Your task to perform on an android device: Go to CNN.com Image 0: 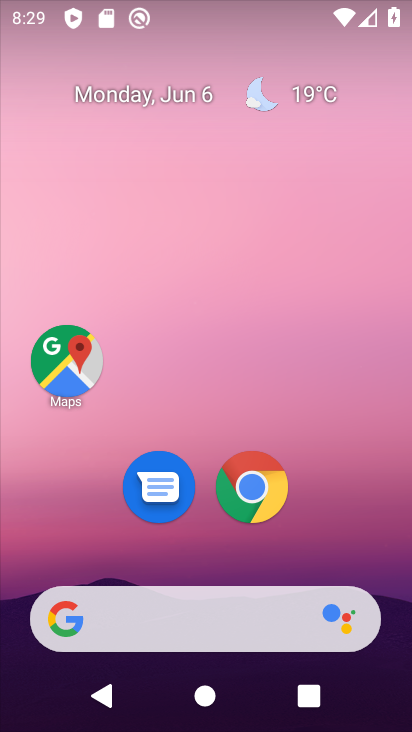
Step 0: press home button
Your task to perform on an android device: Go to CNN.com Image 1: 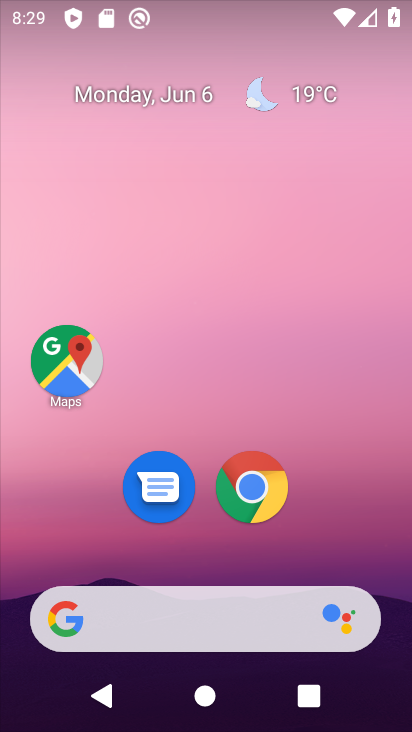
Step 1: click (248, 478)
Your task to perform on an android device: Go to CNN.com Image 2: 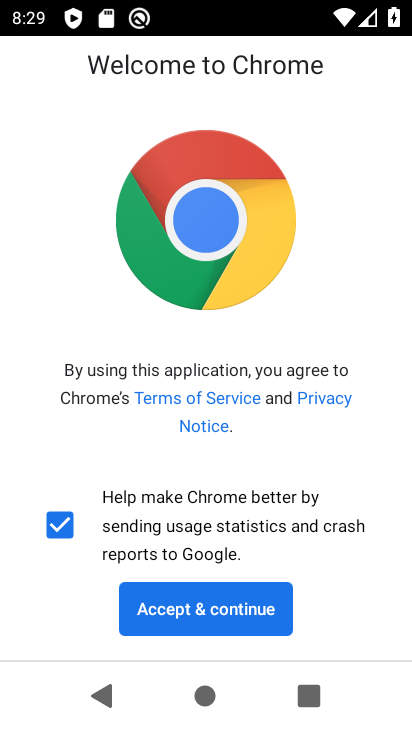
Step 2: click (200, 606)
Your task to perform on an android device: Go to CNN.com Image 3: 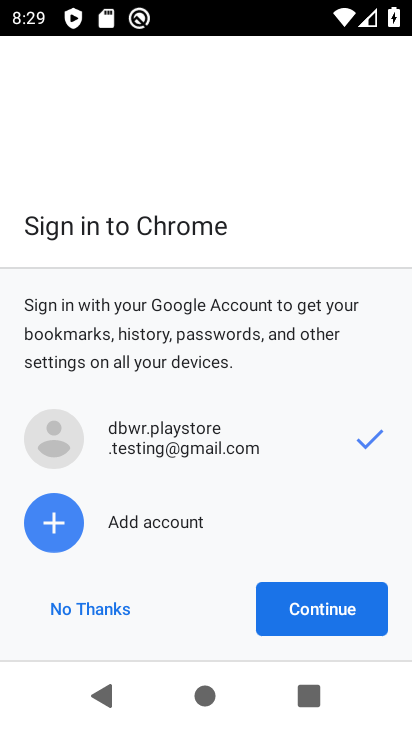
Step 3: click (312, 603)
Your task to perform on an android device: Go to CNN.com Image 4: 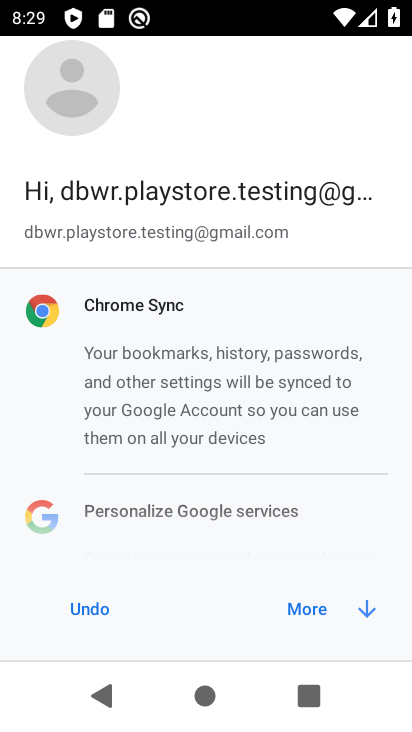
Step 4: click (320, 599)
Your task to perform on an android device: Go to CNN.com Image 5: 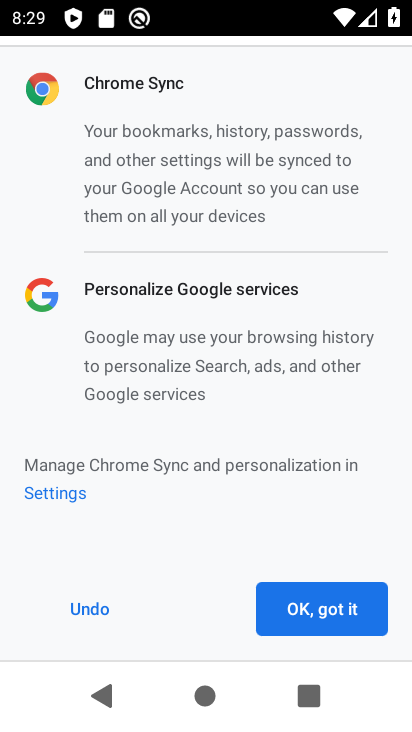
Step 5: click (319, 609)
Your task to perform on an android device: Go to CNN.com Image 6: 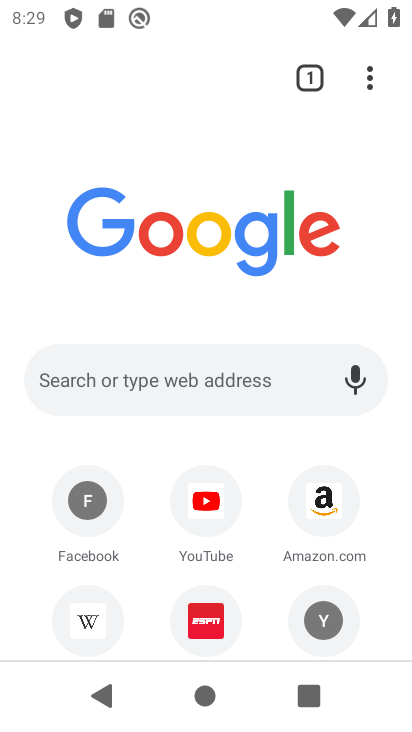
Step 6: click (170, 366)
Your task to perform on an android device: Go to CNN.com Image 7: 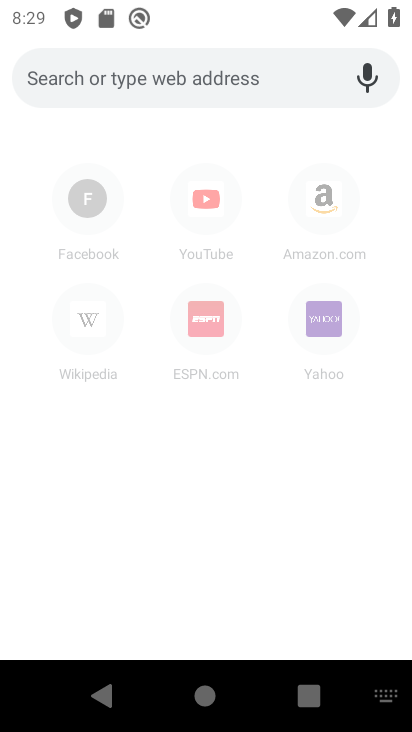
Step 7: type "cnn.com"
Your task to perform on an android device: Go to CNN.com Image 8: 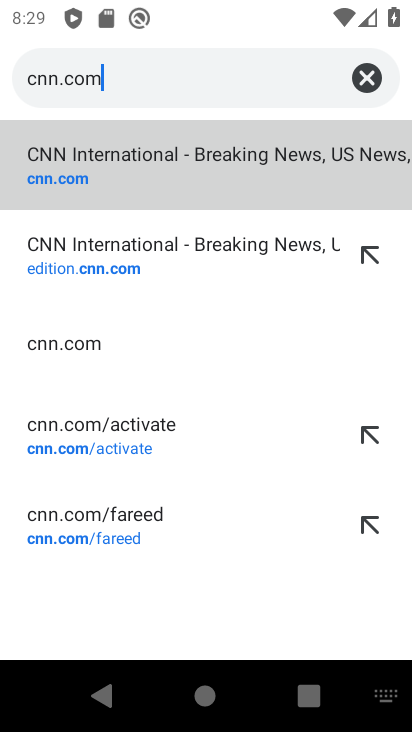
Step 8: click (106, 185)
Your task to perform on an android device: Go to CNN.com Image 9: 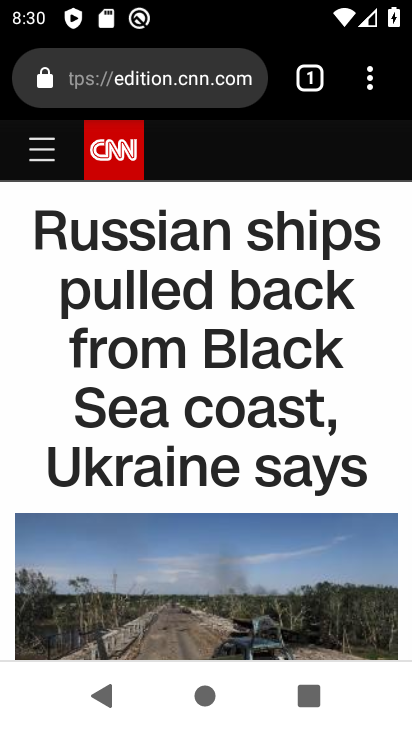
Step 9: drag from (166, 551) to (199, 193)
Your task to perform on an android device: Go to CNN.com Image 10: 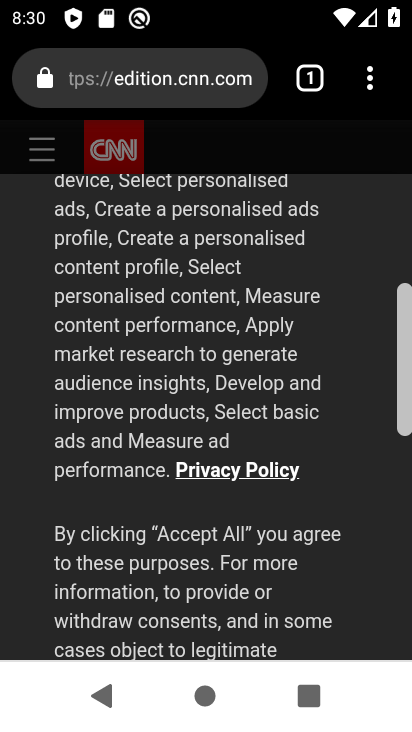
Step 10: drag from (222, 580) to (259, 177)
Your task to perform on an android device: Go to CNN.com Image 11: 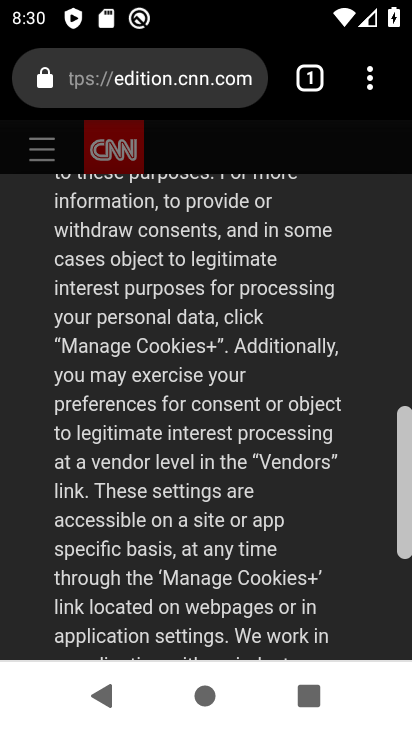
Step 11: drag from (304, 625) to (292, 311)
Your task to perform on an android device: Go to CNN.com Image 12: 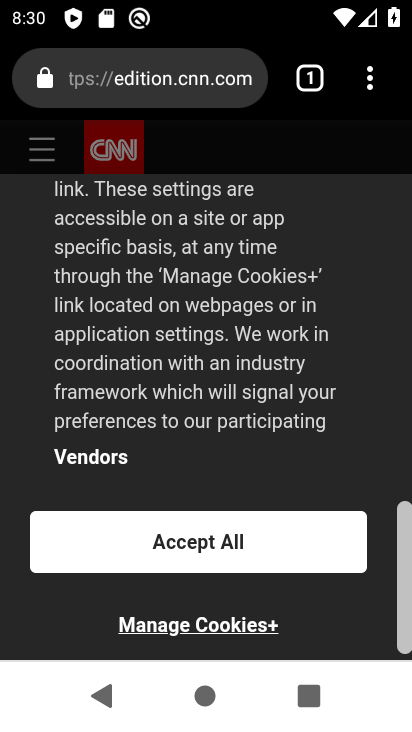
Step 12: click (217, 552)
Your task to perform on an android device: Go to CNN.com Image 13: 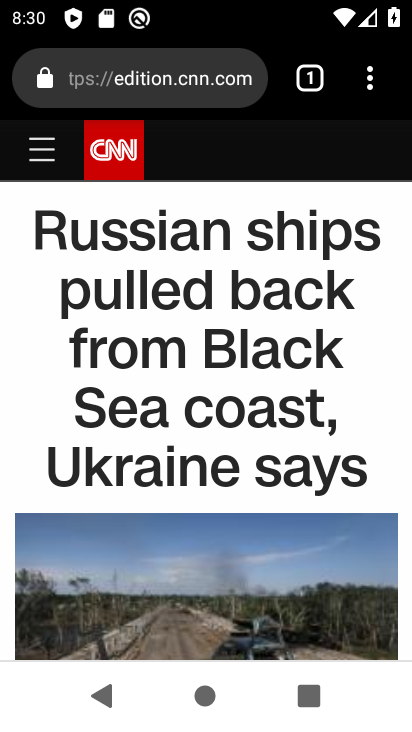
Step 13: task complete